Your task to perform on an android device: move a message to another label in the gmail app Image 0: 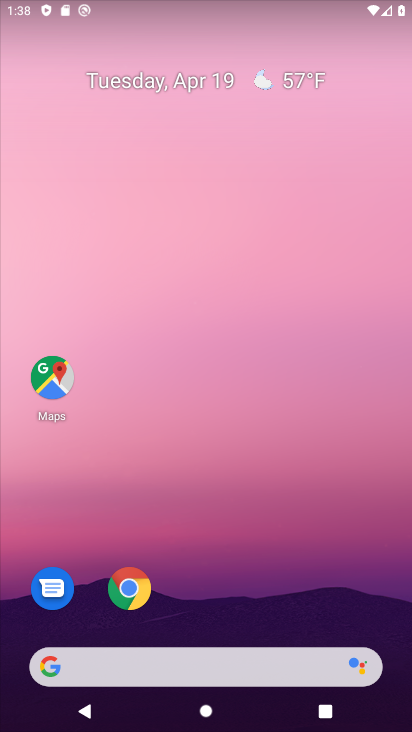
Step 0: drag from (358, 539) to (373, 71)
Your task to perform on an android device: move a message to another label in the gmail app Image 1: 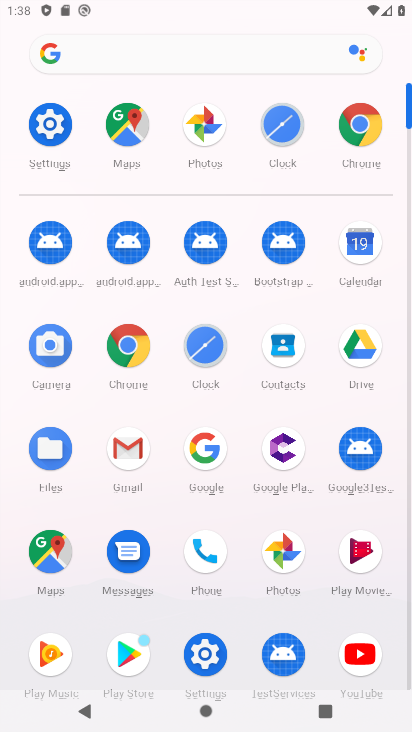
Step 1: click (134, 452)
Your task to perform on an android device: move a message to another label in the gmail app Image 2: 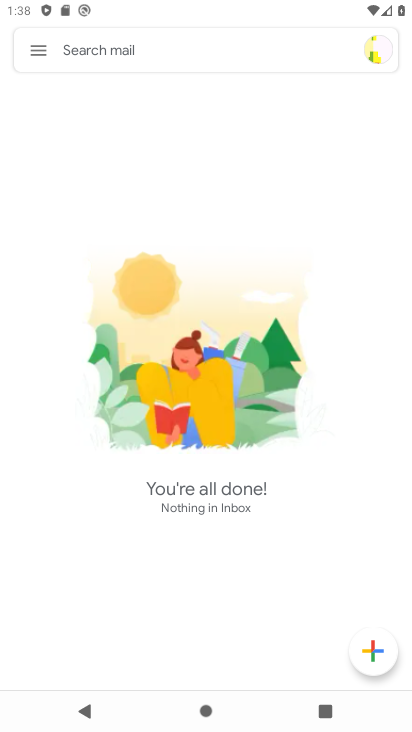
Step 2: click (43, 52)
Your task to perform on an android device: move a message to another label in the gmail app Image 3: 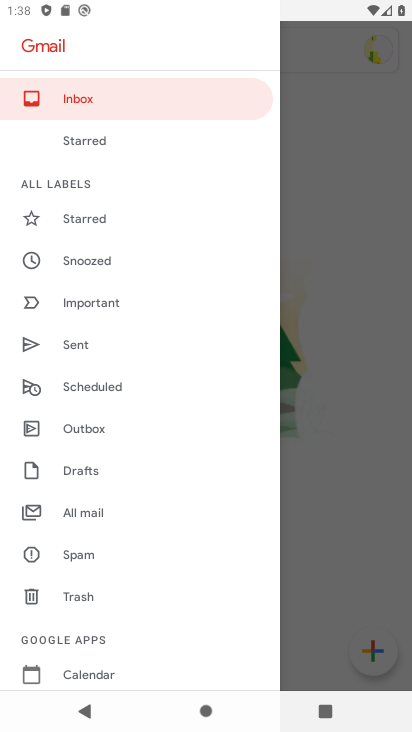
Step 3: click (92, 513)
Your task to perform on an android device: move a message to another label in the gmail app Image 4: 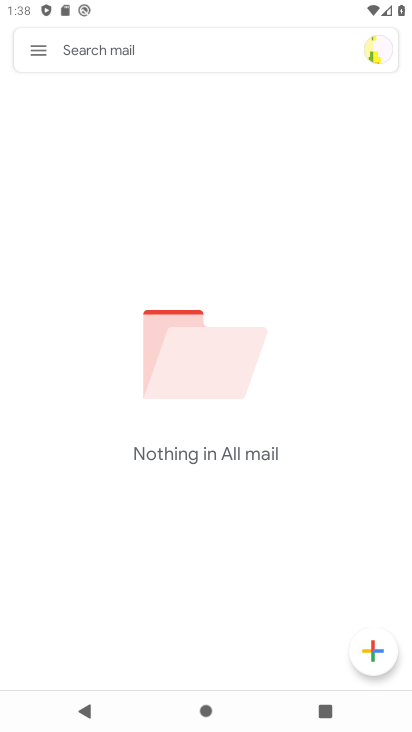
Step 4: task complete